Your task to perform on an android device: turn off improve location accuracy Image 0: 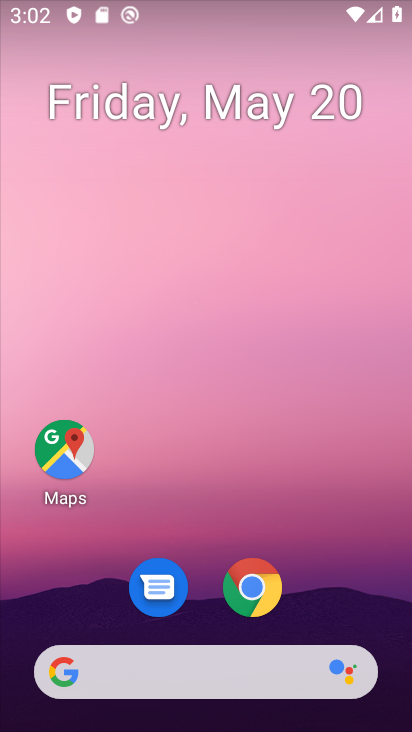
Step 0: press home button
Your task to perform on an android device: turn off improve location accuracy Image 1: 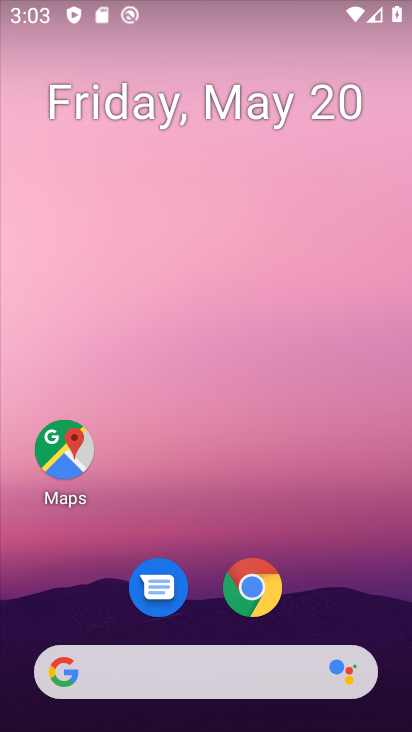
Step 1: drag from (388, 595) to (356, 130)
Your task to perform on an android device: turn off improve location accuracy Image 2: 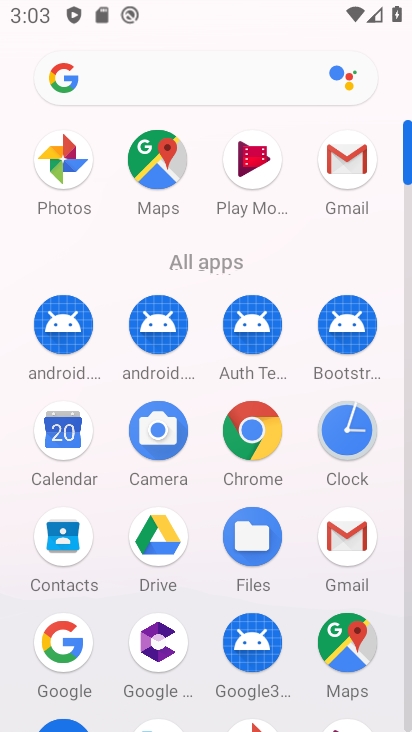
Step 2: click (410, 726)
Your task to perform on an android device: turn off improve location accuracy Image 3: 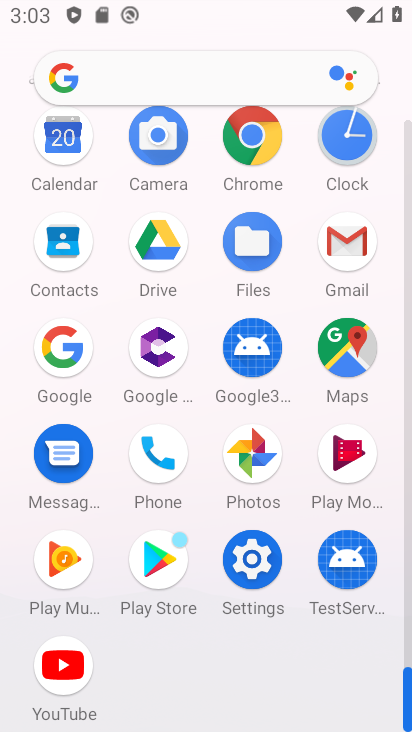
Step 3: click (254, 558)
Your task to perform on an android device: turn off improve location accuracy Image 4: 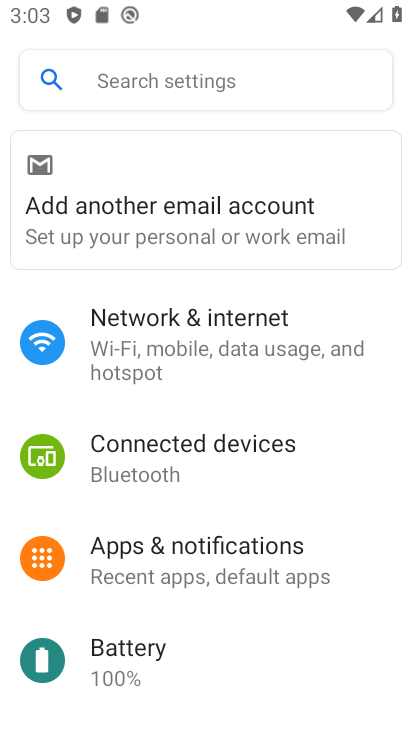
Step 4: drag from (231, 636) to (298, 84)
Your task to perform on an android device: turn off improve location accuracy Image 5: 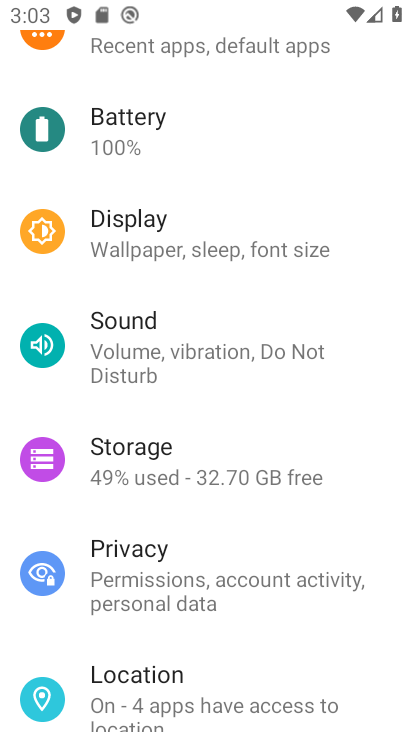
Step 5: drag from (282, 530) to (278, 250)
Your task to perform on an android device: turn off improve location accuracy Image 6: 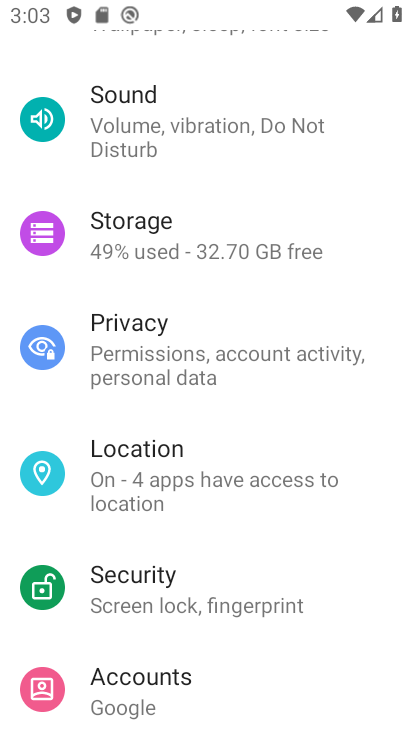
Step 6: click (221, 479)
Your task to perform on an android device: turn off improve location accuracy Image 7: 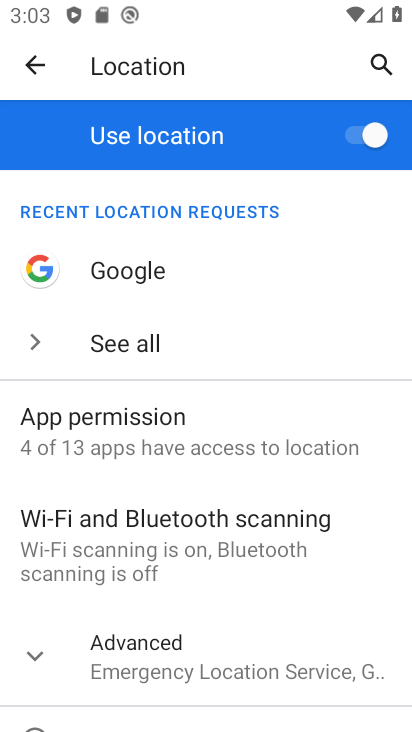
Step 7: click (210, 656)
Your task to perform on an android device: turn off improve location accuracy Image 8: 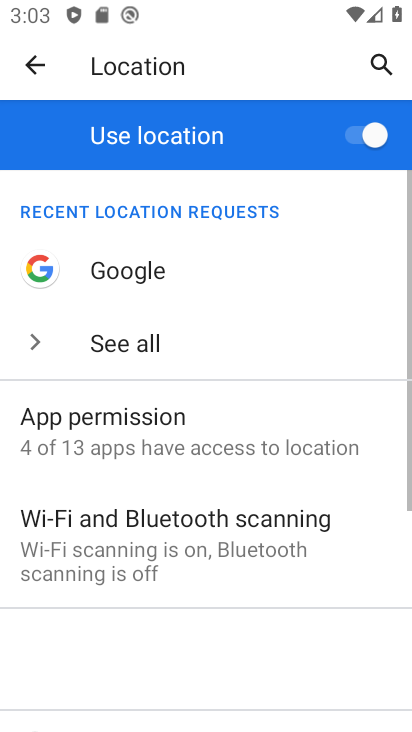
Step 8: drag from (210, 651) to (271, 312)
Your task to perform on an android device: turn off improve location accuracy Image 9: 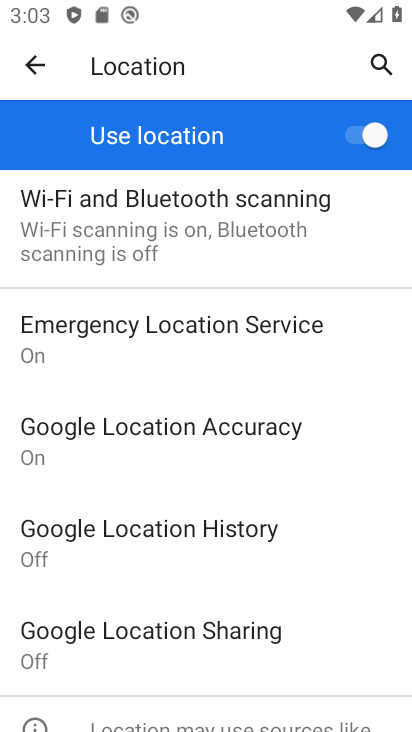
Step 9: click (152, 465)
Your task to perform on an android device: turn off improve location accuracy Image 10: 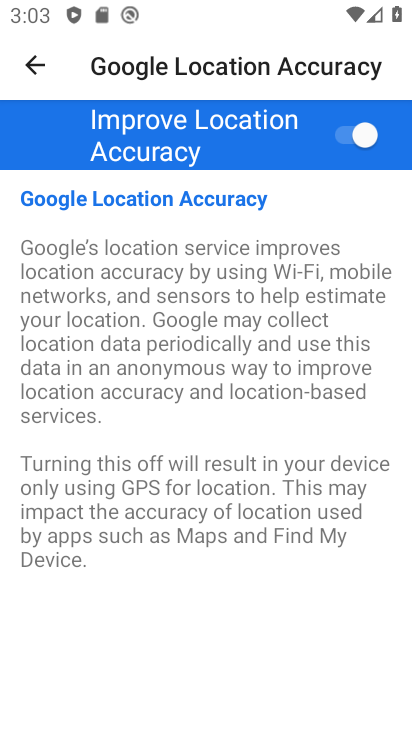
Step 10: click (355, 129)
Your task to perform on an android device: turn off improve location accuracy Image 11: 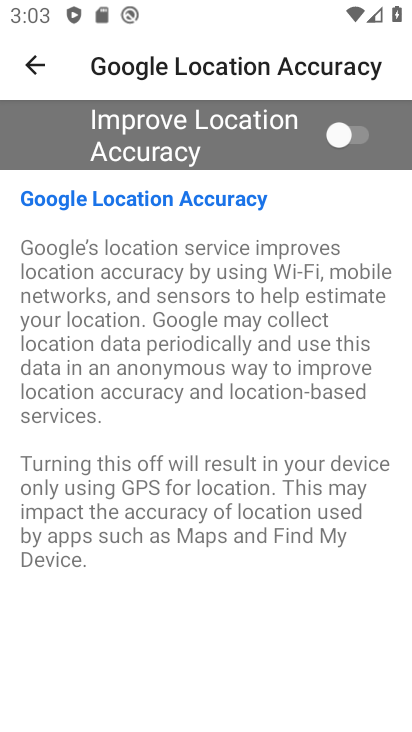
Step 11: task complete